Your task to perform on an android device: Search for Italian restaurants on Maps Image 0: 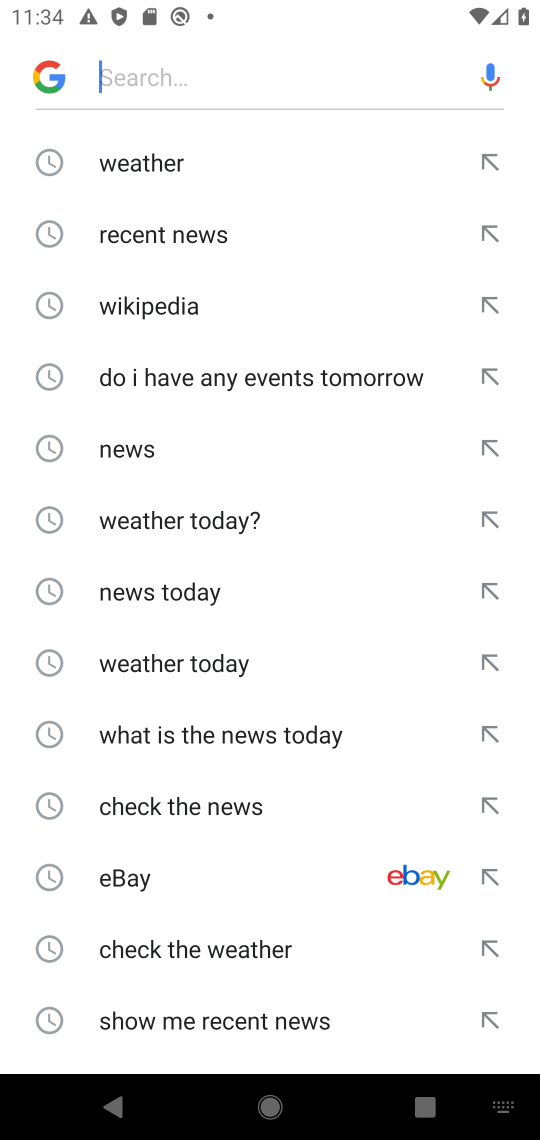
Step 0: press home button
Your task to perform on an android device: Search for Italian restaurants on Maps Image 1: 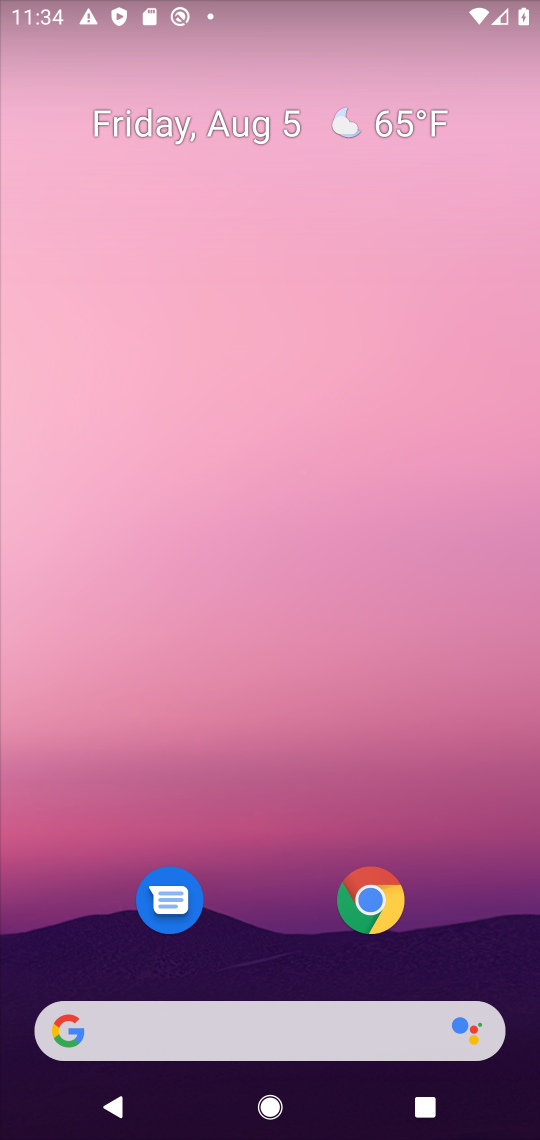
Step 1: drag from (289, 977) to (286, 122)
Your task to perform on an android device: Search for Italian restaurants on Maps Image 2: 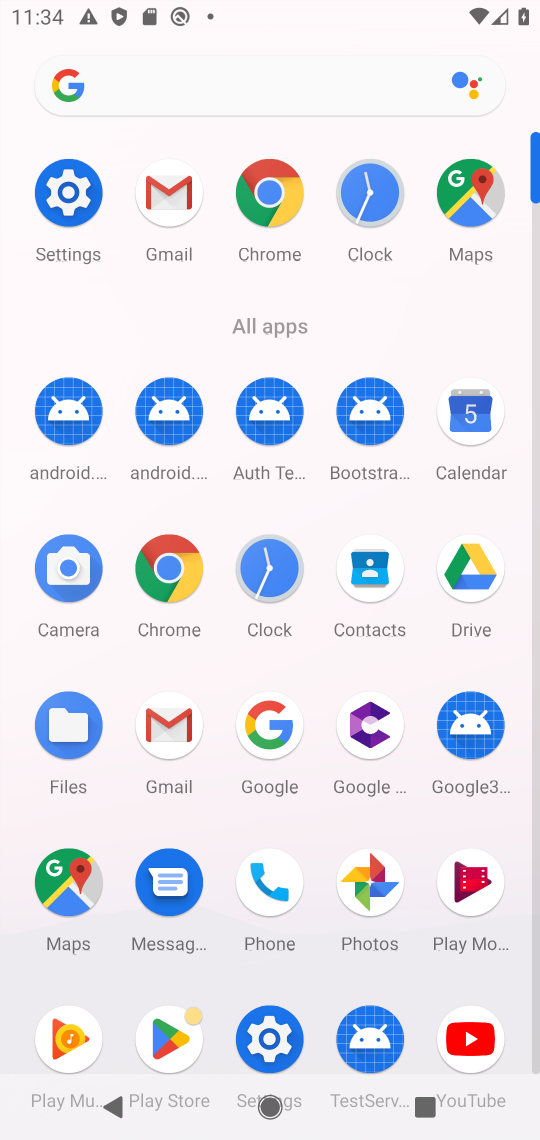
Step 2: click (69, 875)
Your task to perform on an android device: Search for Italian restaurants on Maps Image 3: 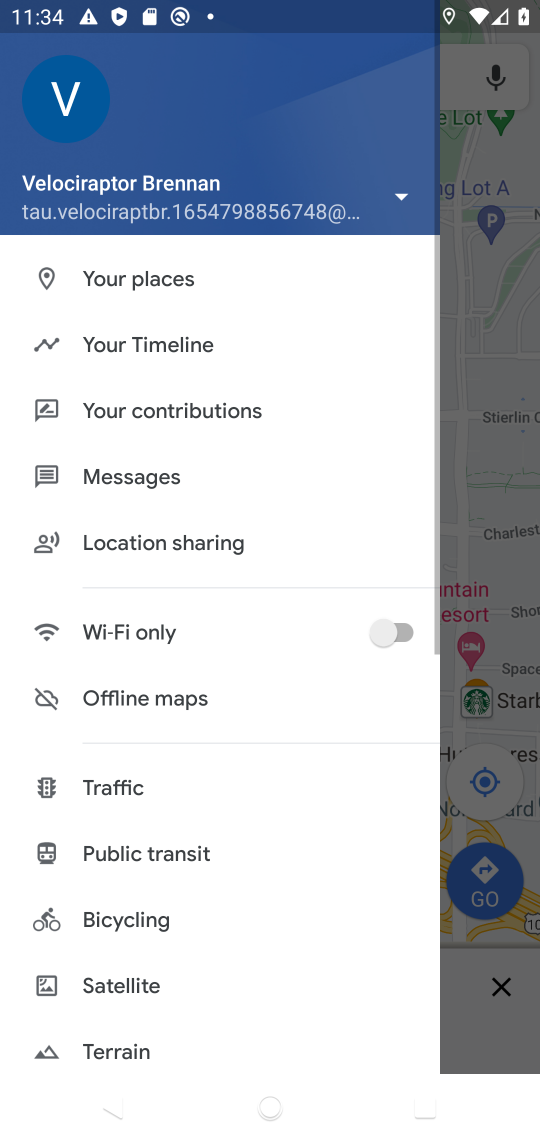
Step 3: click (475, 353)
Your task to perform on an android device: Search for Italian restaurants on Maps Image 4: 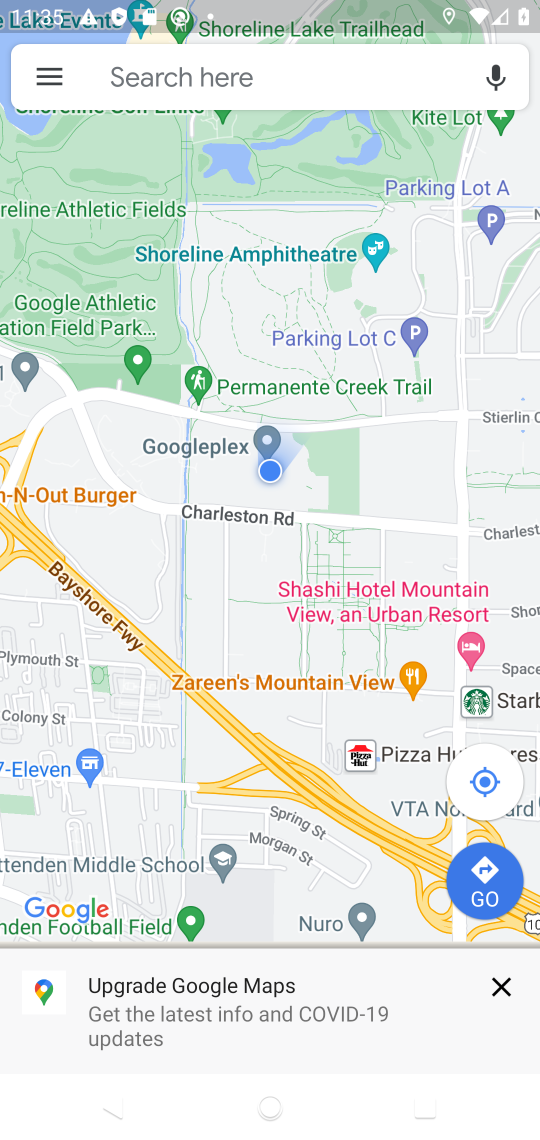
Step 4: click (176, 65)
Your task to perform on an android device: Search for Italian restaurants on Maps Image 5: 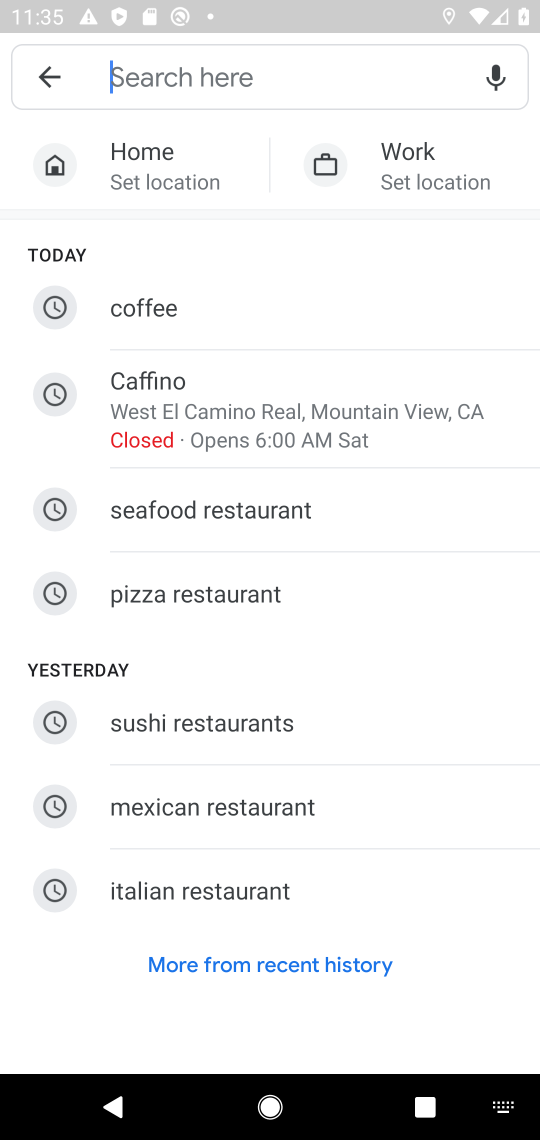
Step 5: type "Italian restaurants"
Your task to perform on an android device: Search for Italian restaurants on Maps Image 6: 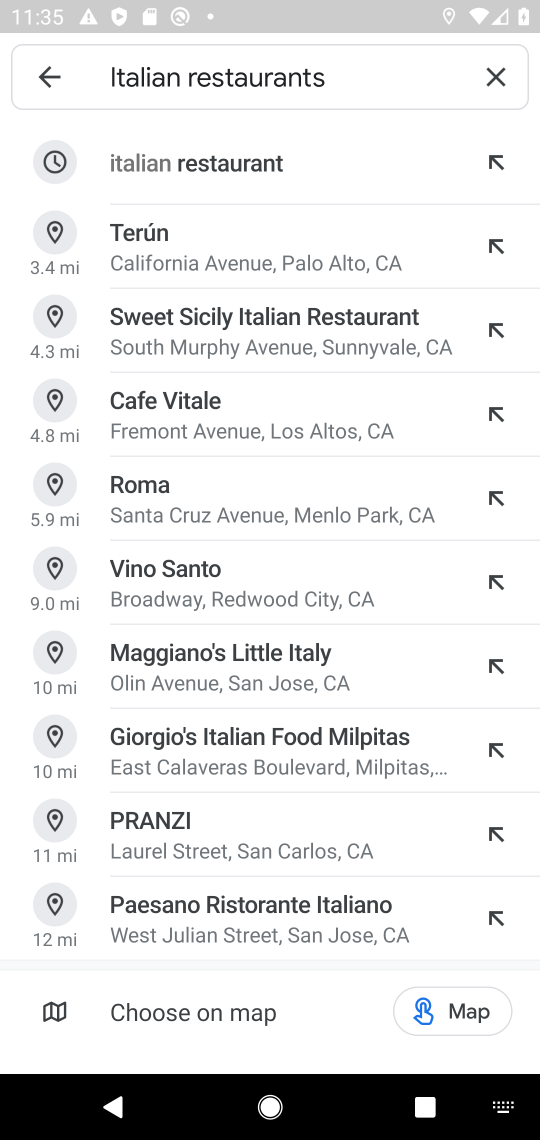
Step 6: click (234, 165)
Your task to perform on an android device: Search for Italian restaurants on Maps Image 7: 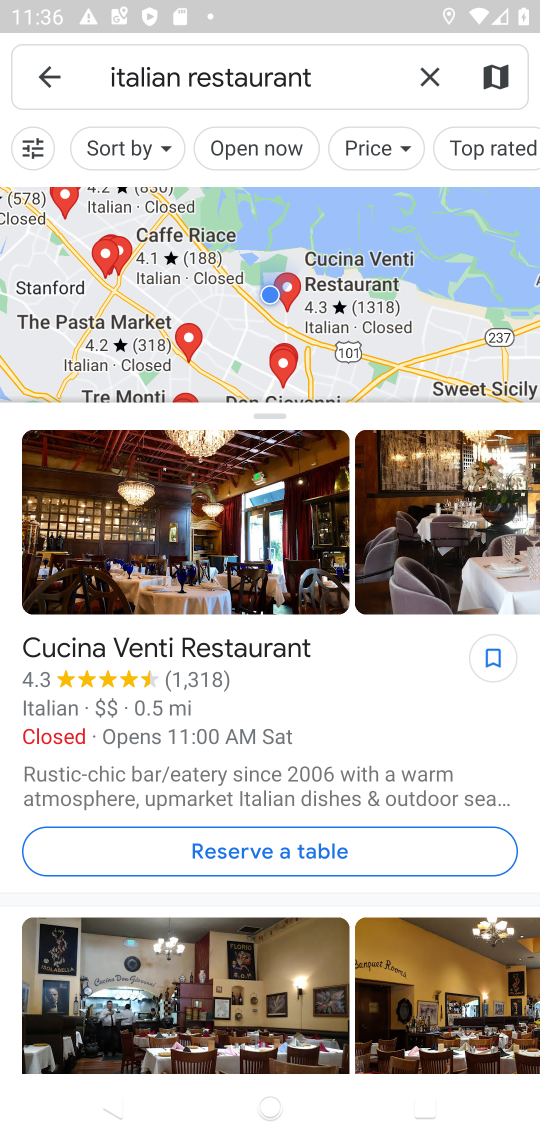
Step 7: task complete